Your task to perform on an android device: turn off translation in the chrome app Image 0: 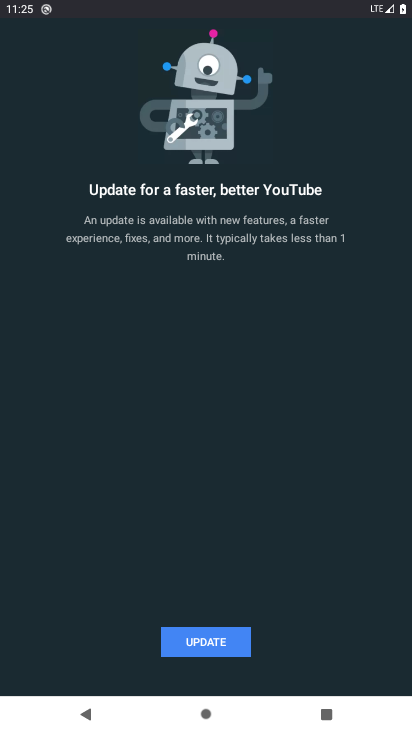
Step 0: press home button
Your task to perform on an android device: turn off translation in the chrome app Image 1: 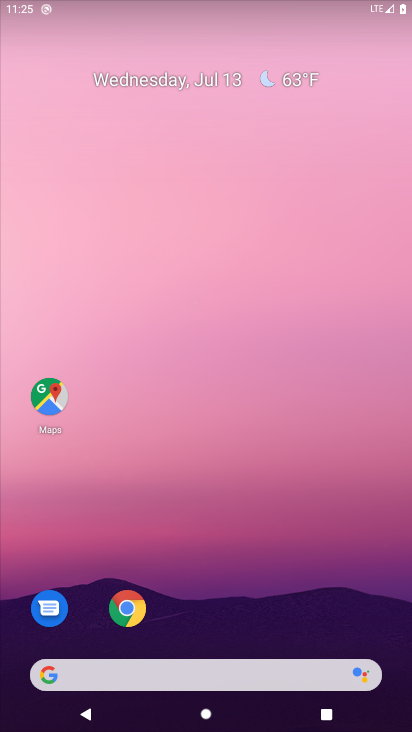
Step 1: drag from (328, 448) to (351, 4)
Your task to perform on an android device: turn off translation in the chrome app Image 2: 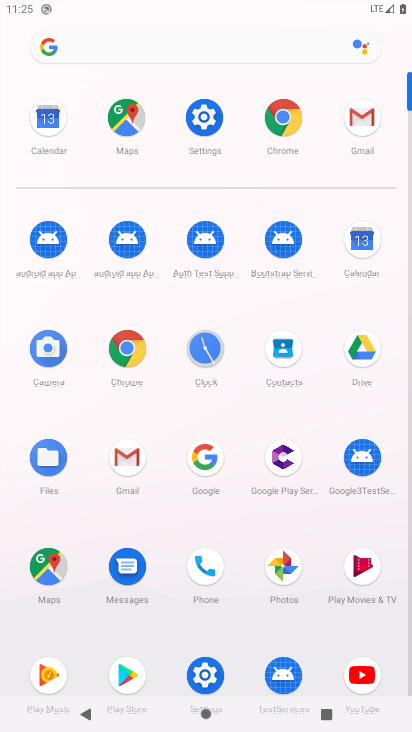
Step 2: click (126, 339)
Your task to perform on an android device: turn off translation in the chrome app Image 3: 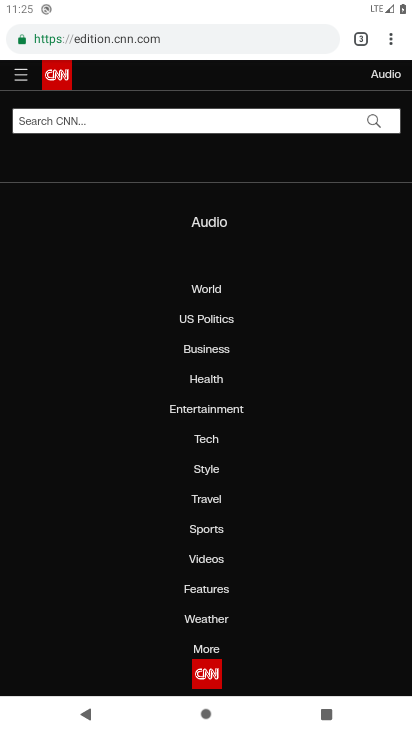
Step 3: drag from (392, 39) to (258, 463)
Your task to perform on an android device: turn off translation in the chrome app Image 4: 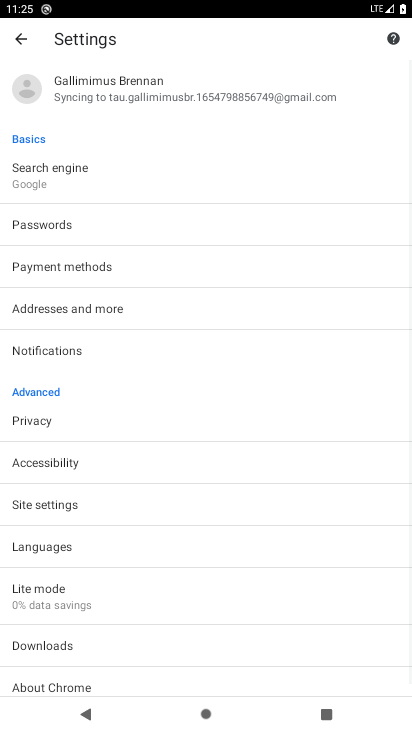
Step 4: drag from (159, 499) to (228, 143)
Your task to perform on an android device: turn off translation in the chrome app Image 5: 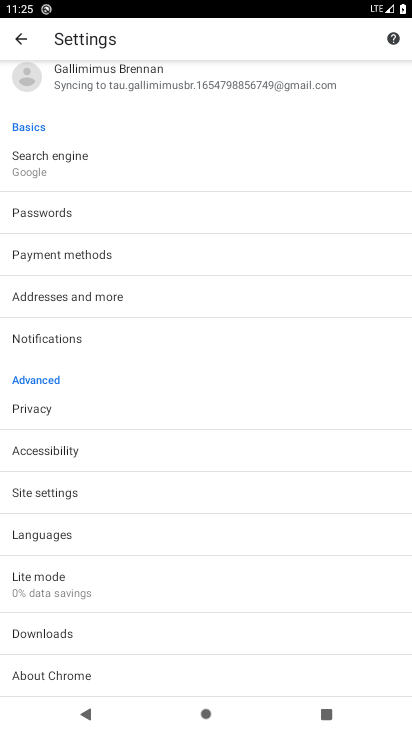
Step 5: click (80, 531)
Your task to perform on an android device: turn off translation in the chrome app Image 6: 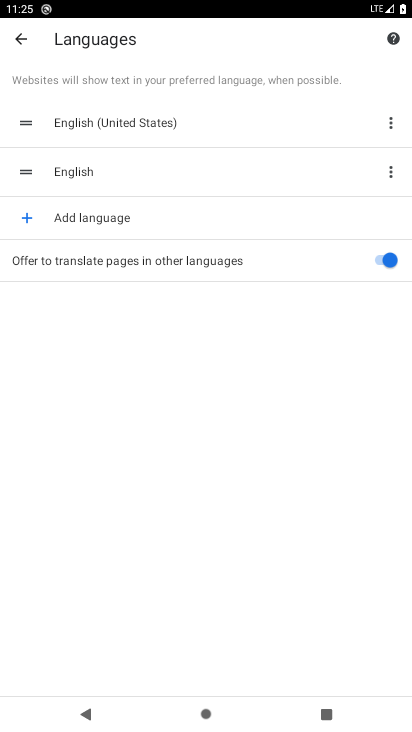
Step 6: click (363, 258)
Your task to perform on an android device: turn off translation in the chrome app Image 7: 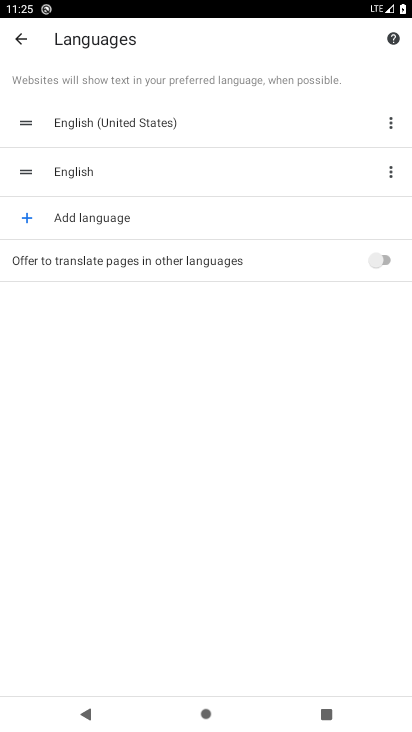
Step 7: task complete